Your task to perform on an android device: Go to Google Image 0: 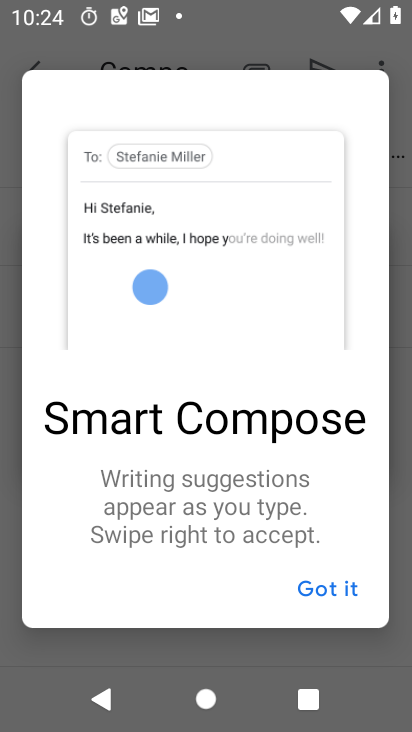
Step 0: press home button
Your task to perform on an android device: Go to Google Image 1: 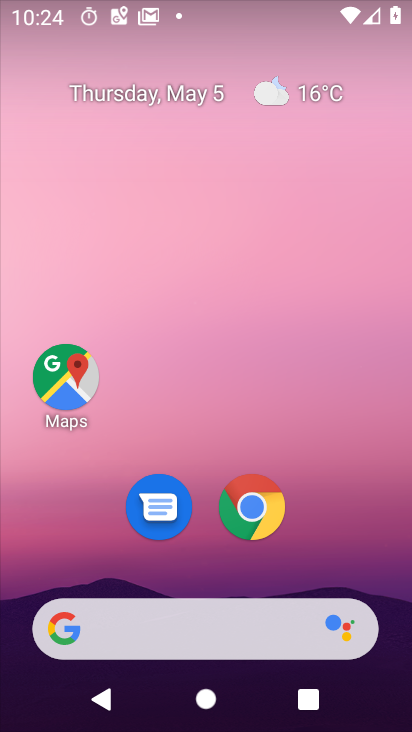
Step 1: drag from (214, 386) to (214, 145)
Your task to perform on an android device: Go to Google Image 2: 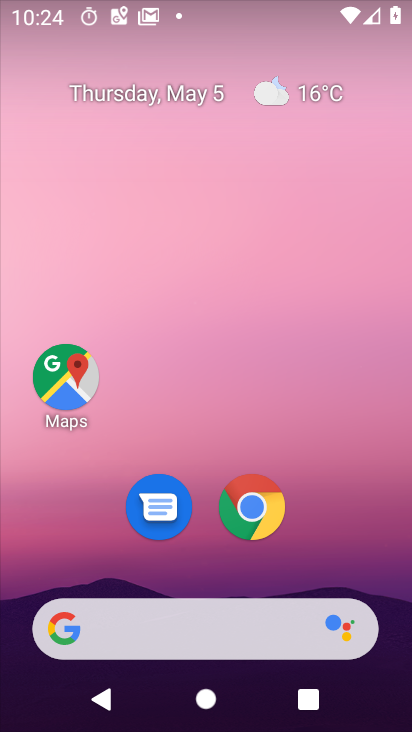
Step 2: drag from (211, 583) to (244, 42)
Your task to perform on an android device: Go to Google Image 3: 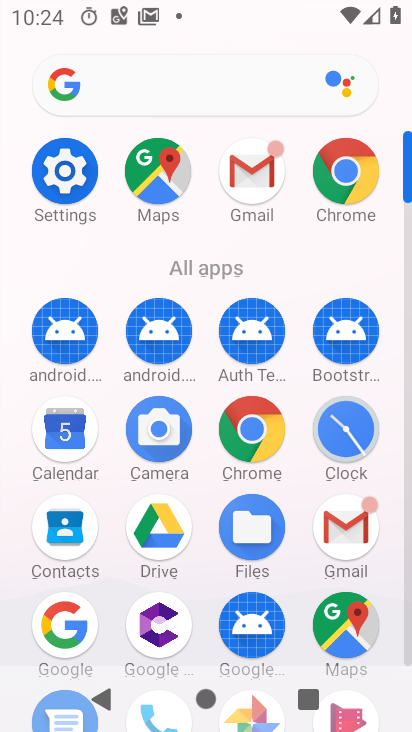
Step 3: click (59, 622)
Your task to perform on an android device: Go to Google Image 4: 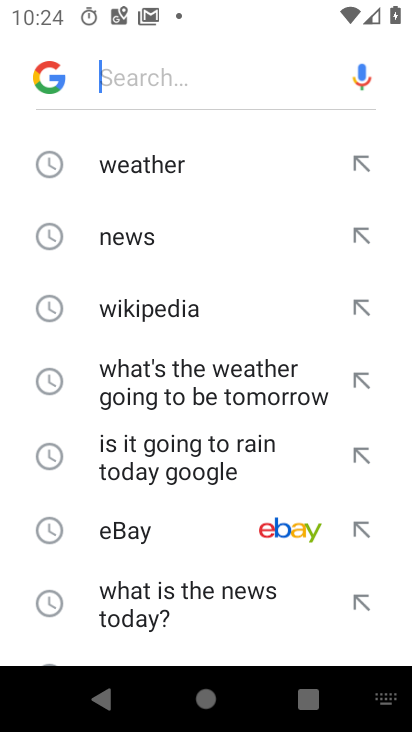
Step 4: task complete